Your task to perform on an android device: turn pop-ups off in chrome Image 0: 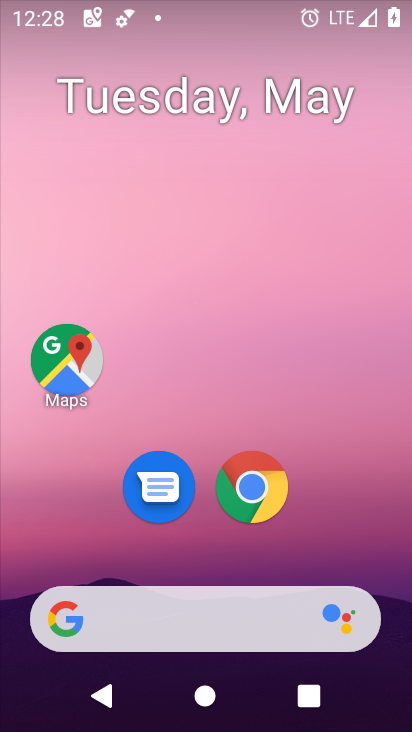
Step 0: click (244, 483)
Your task to perform on an android device: turn pop-ups off in chrome Image 1: 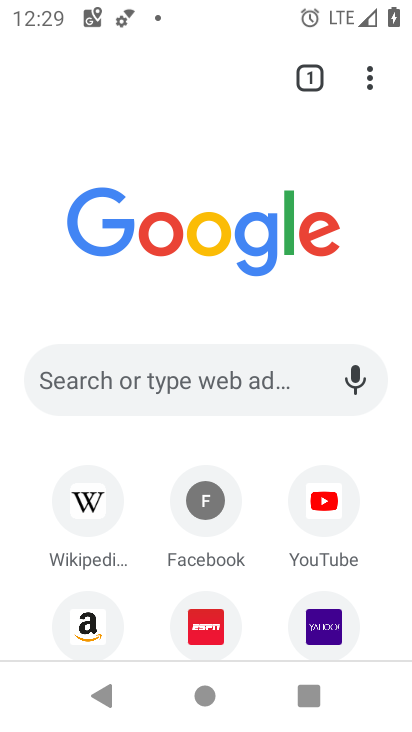
Step 1: click (368, 76)
Your task to perform on an android device: turn pop-ups off in chrome Image 2: 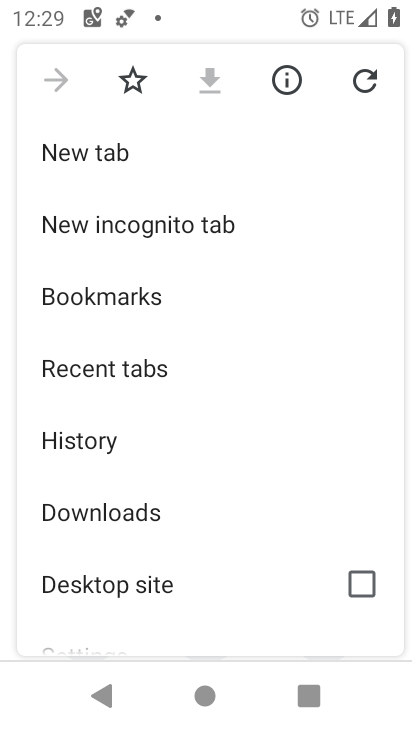
Step 2: drag from (20, 530) to (160, 105)
Your task to perform on an android device: turn pop-ups off in chrome Image 3: 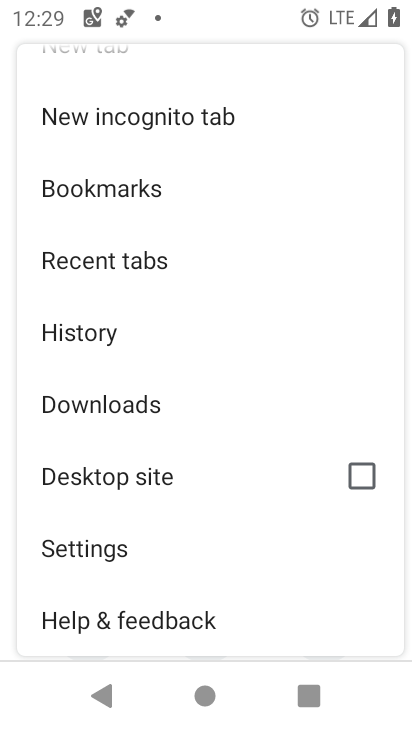
Step 3: click (69, 548)
Your task to perform on an android device: turn pop-ups off in chrome Image 4: 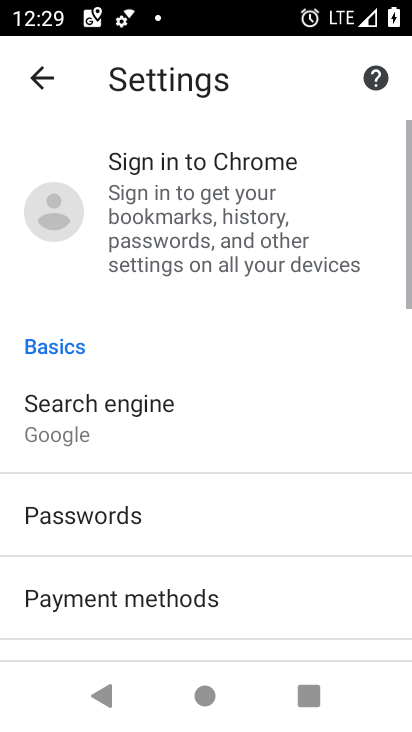
Step 4: drag from (107, 562) to (268, 169)
Your task to perform on an android device: turn pop-ups off in chrome Image 5: 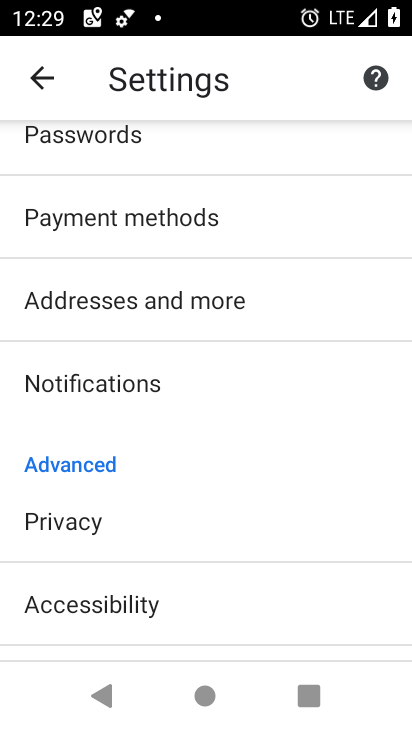
Step 5: drag from (15, 543) to (227, 134)
Your task to perform on an android device: turn pop-ups off in chrome Image 6: 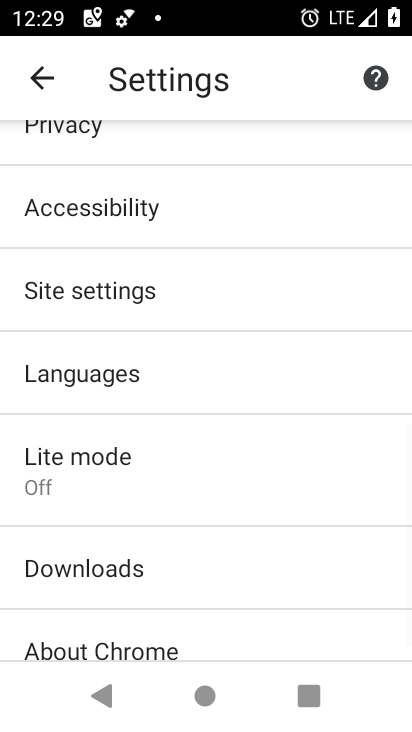
Step 6: click (72, 292)
Your task to perform on an android device: turn pop-ups off in chrome Image 7: 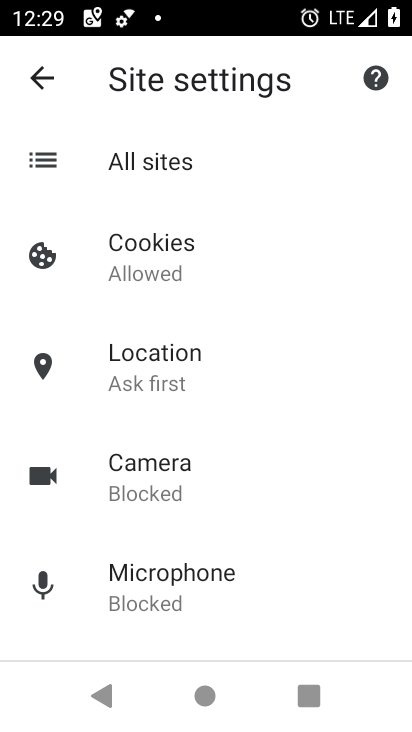
Step 7: drag from (25, 645) to (205, 219)
Your task to perform on an android device: turn pop-ups off in chrome Image 8: 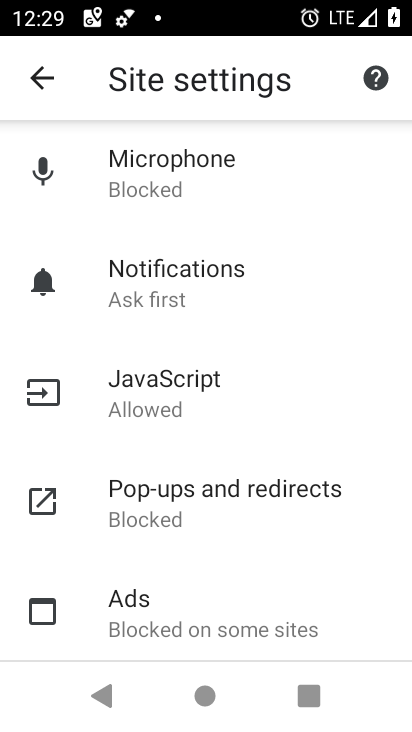
Step 8: click (249, 504)
Your task to perform on an android device: turn pop-ups off in chrome Image 9: 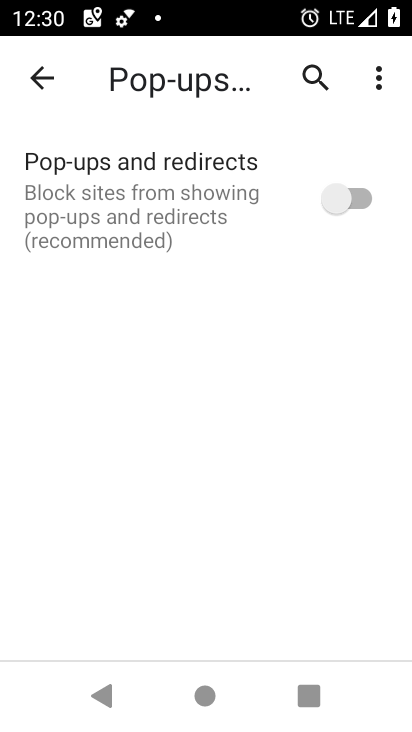
Step 9: task complete